Your task to perform on an android device: turn pop-ups off in chrome Image 0: 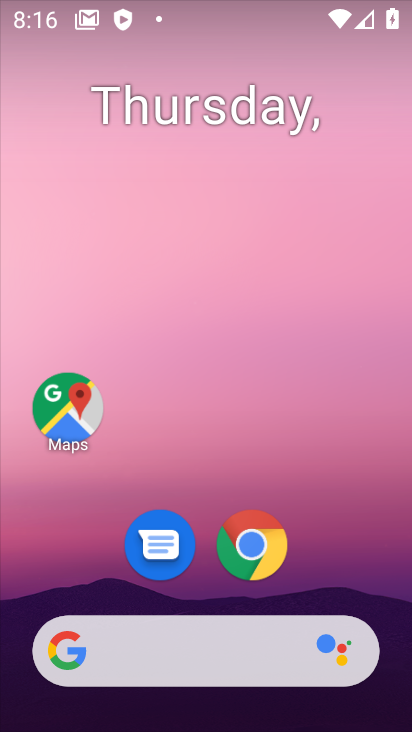
Step 0: click (255, 547)
Your task to perform on an android device: turn pop-ups off in chrome Image 1: 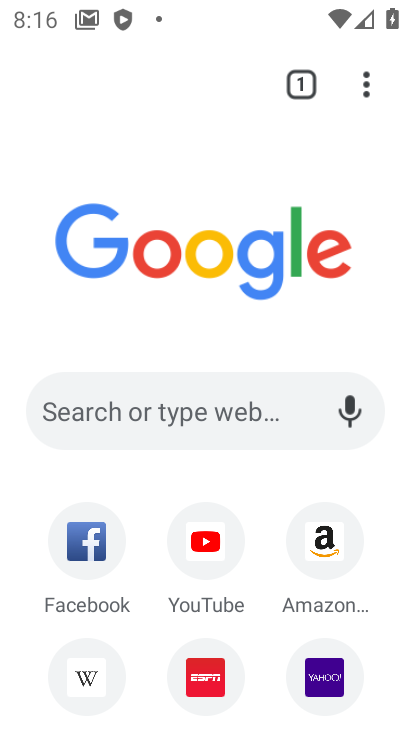
Step 1: click (385, 90)
Your task to perform on an android device: turn pop-ups off in chrome Image 2: 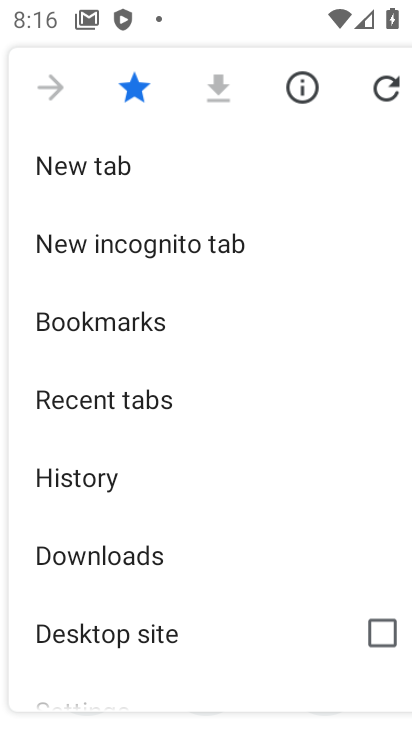
Step 2: drag from (130, 597) to (195, 70)
Your task to perform on an android device: turn pop-ups off in chrome Image 3: 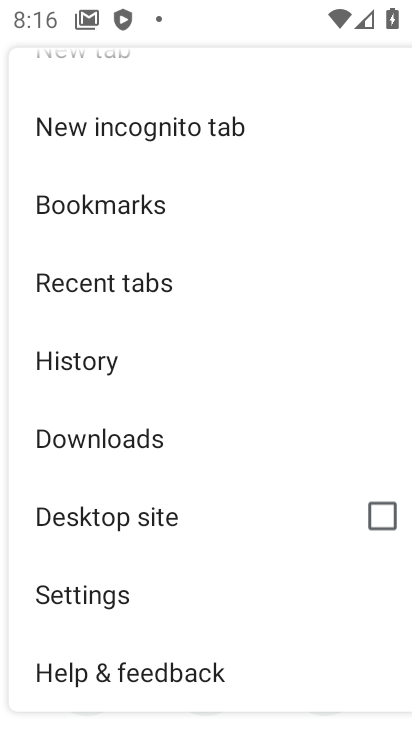
Step 3: click (65, 599)
Your task to perform on an android device: turn pop-ups off in chrome Image 4: 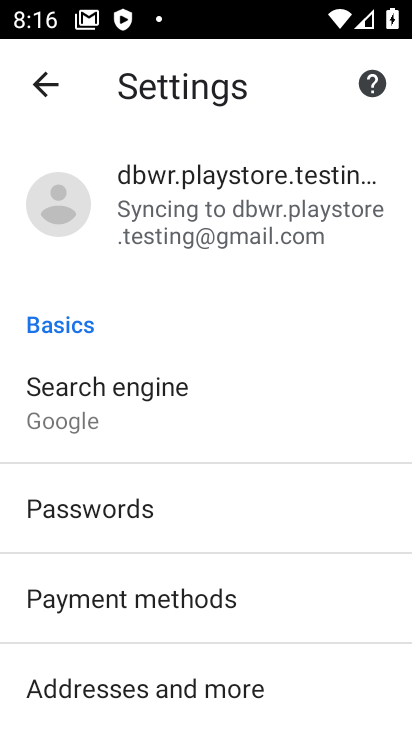
Step 4: drag from (177, 671) to (252, 153)
Your task to perform on an android device: turn pop-ups off in chrome Image 5: 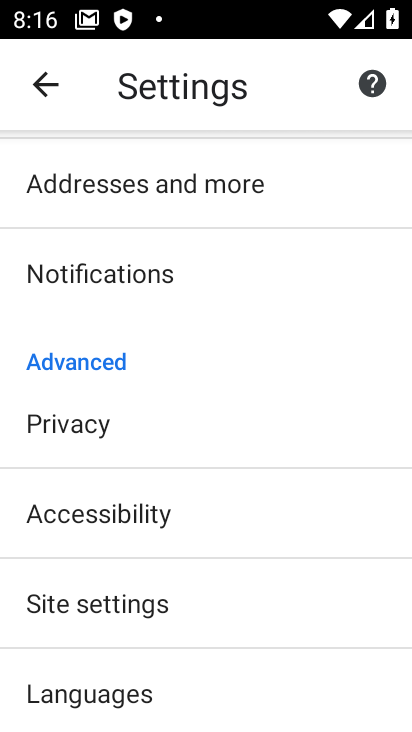
Step 5: drag from (104, 596) to (138, 160)
Your task to perform on an android device: turn pop-ups off in chrome Image 6: 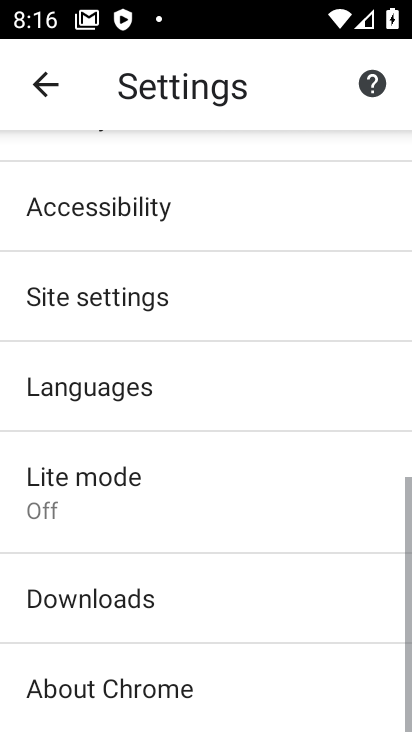
Step 6: drag from (64, 654) to (143, 119)
Your task to perform on an android device: turn pop-ups off in chrome Image 7: 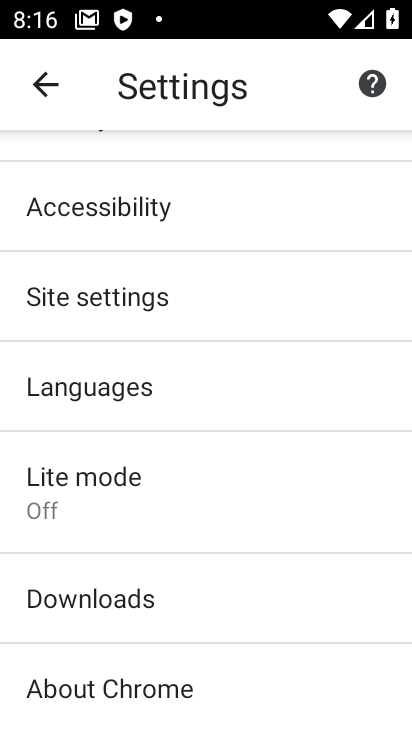
Step 7: click (87, 291)
Your task to perform on an android device: turn pop-ups off in chrome Image 8: 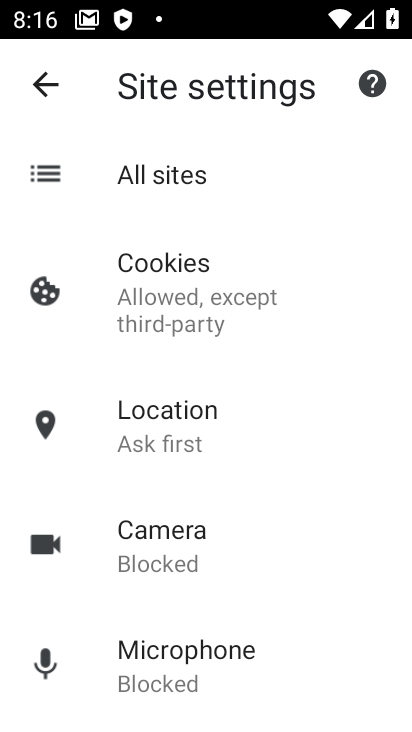
Step 8: drag from (214, 594) to (261, 94)
Your task to perform on an android device: turn pop-ups off in chrome Image 9: 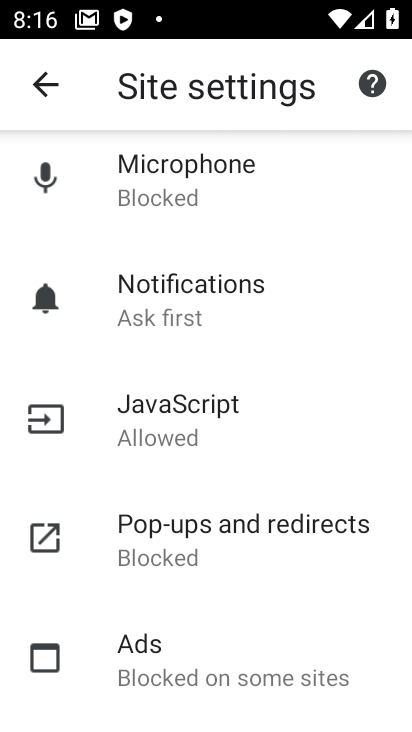
Step 9: click (189, 508)
Your task to perform on an android device: turn pop-ups off in chrome Image 10: 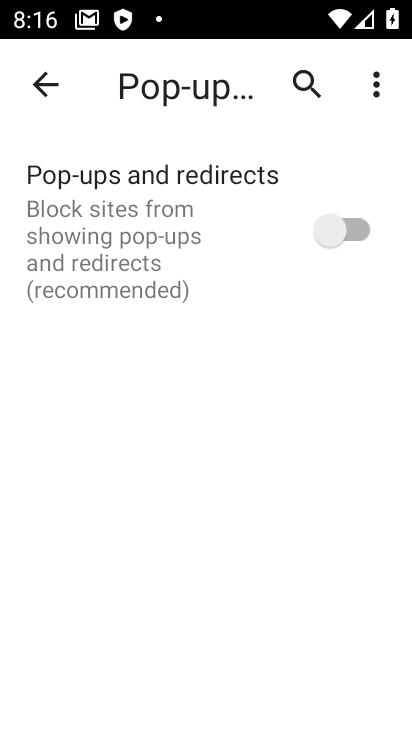
Step 10: task complete